Your task to perform on an android device: turn off location Image 0: 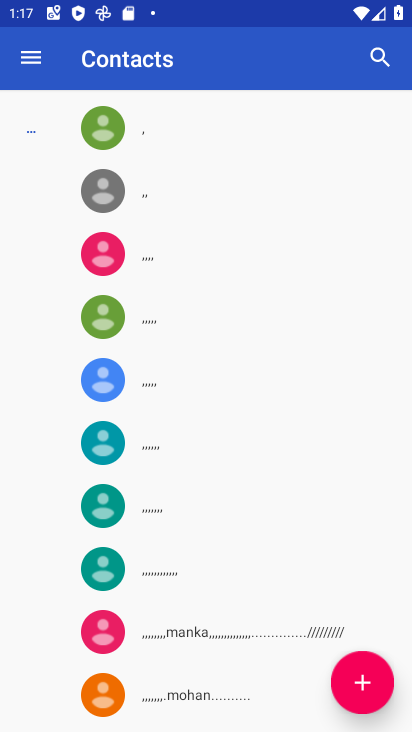
Step 0: press home button
Your task to perform on an android device: turn off location Image 1: 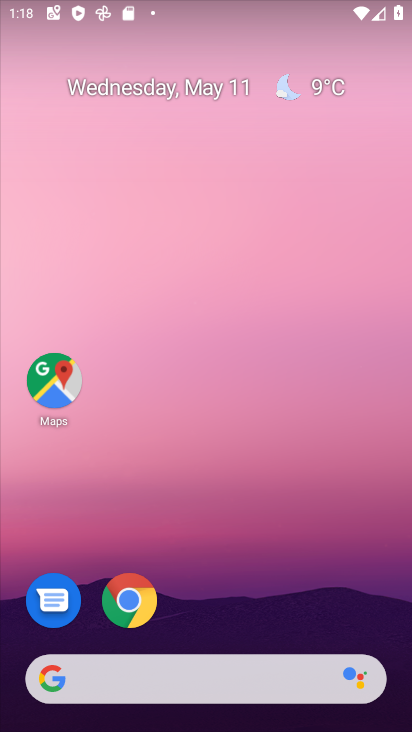
Step 1: drag from (250, 717) to (297, 32)
Your task to perform on an android device: turn off location Image 2: 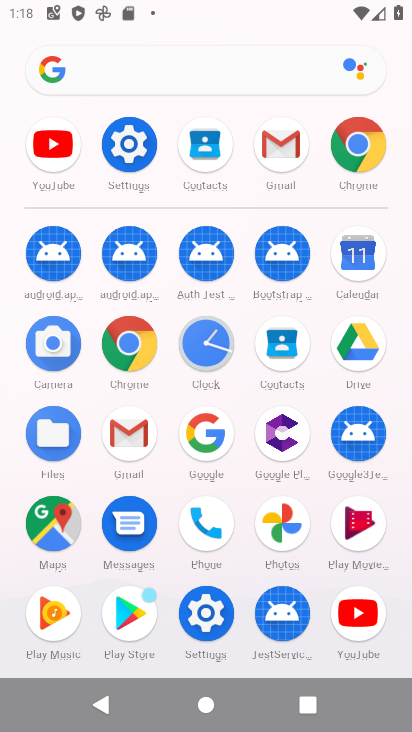
Step 2: click (118, 143)
Your task to perform on an android device: turn off location Image 3: 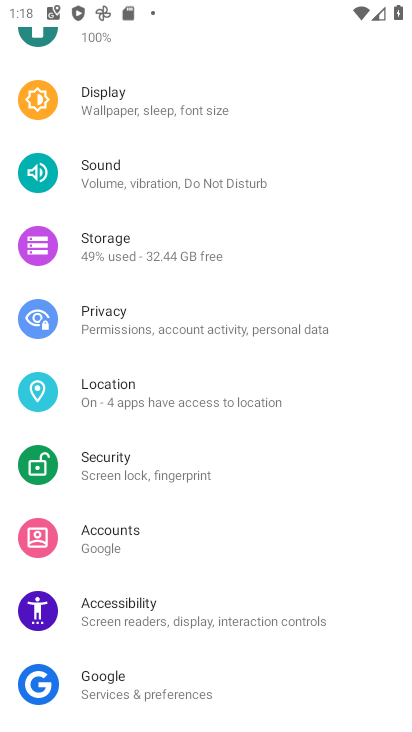
Step 3: click (129, 393)
Your task to perform on an android device: turn off location Image 4: 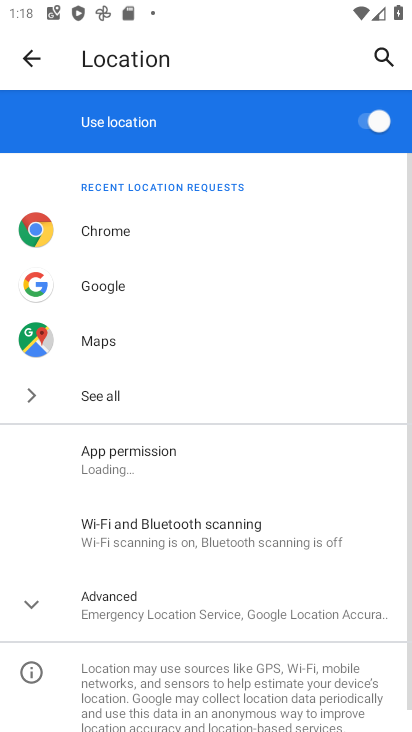
Step 4: click (382, 126)
Your task to perform on an android device: turn off location Image 5: 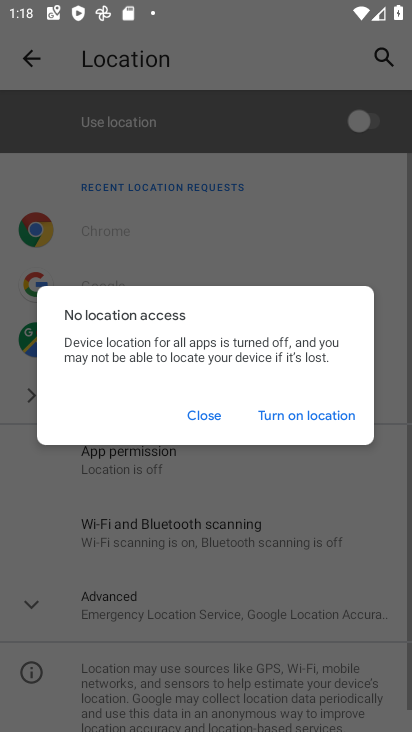
Step 5: task complete